Your task to perform on an android device: toggle location history Image 0: 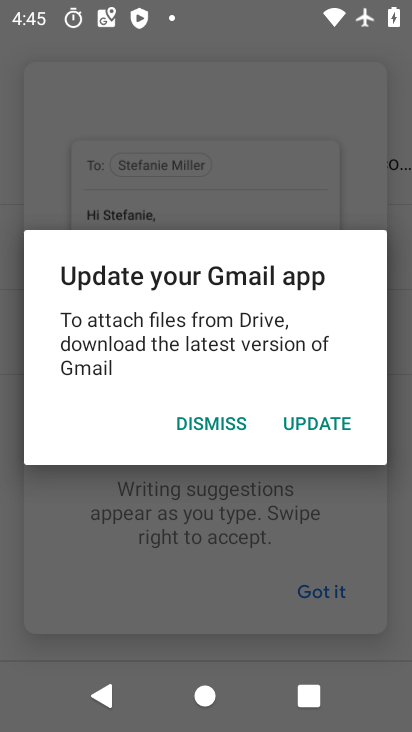
Step 0: press home button
Your task to perform on an android device: toggle location history Image 1: 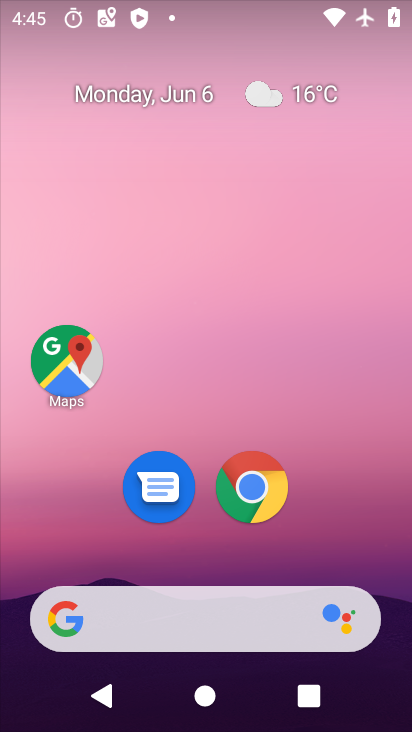
Step 1: drag from (351, 502) to (332, 79)
Your task to perform on an android device: toggle location history Image 2: 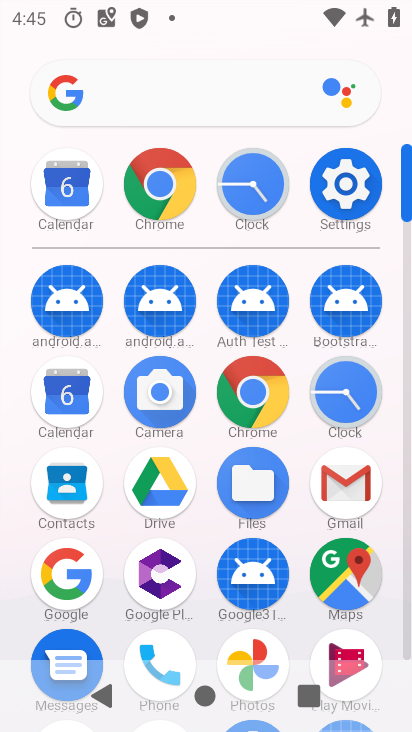
Step 2: click (346, 201)
Your task to perform on an android device: toggle location history Image 3: 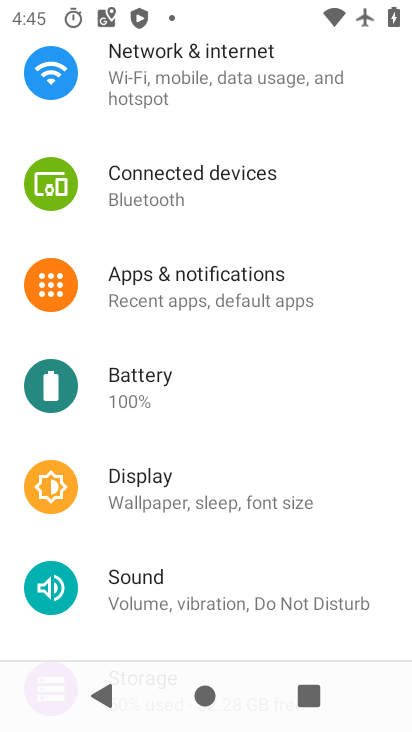
Step 3: drag from (257, 497) to (238, 63)
Your task to perform on an android device: toggle location history Image 4: 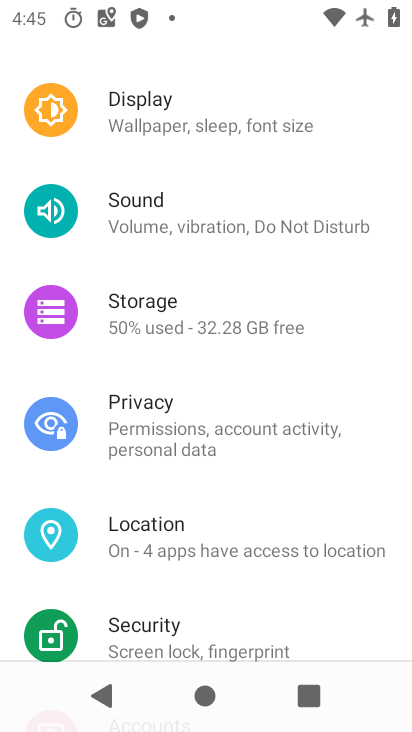
Step 4: click (238, 63)
Your task to perform on an android device: toggle location history Image 5: 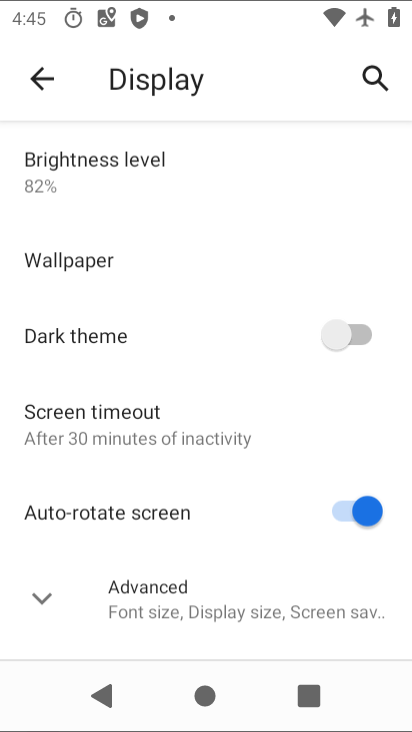
Step 5: click (153, 532)
Your task to perform on an android device: toggle location history Image 6: 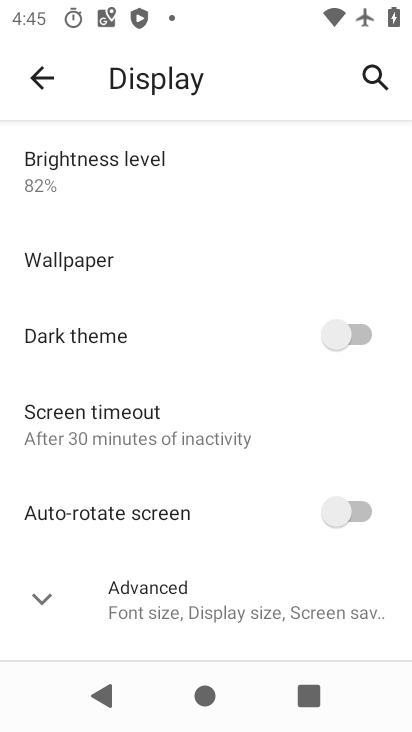
Step 6: click (50, 70)
Your task to perform on an android device: toggle location history Image 7: 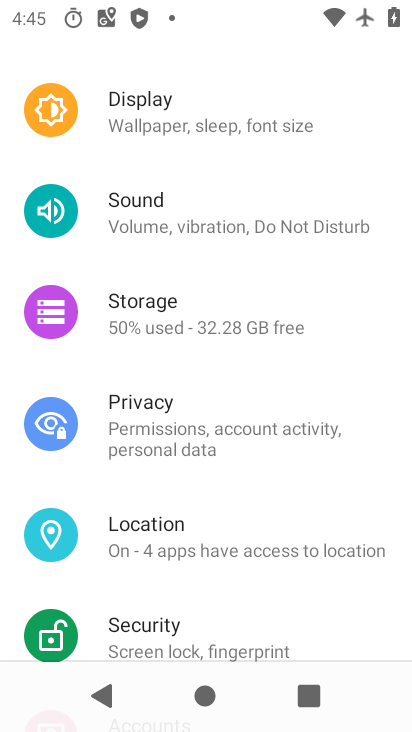
Step 7: click (194, 538)
Your task to perform on an android device: toggle location history Image 8: 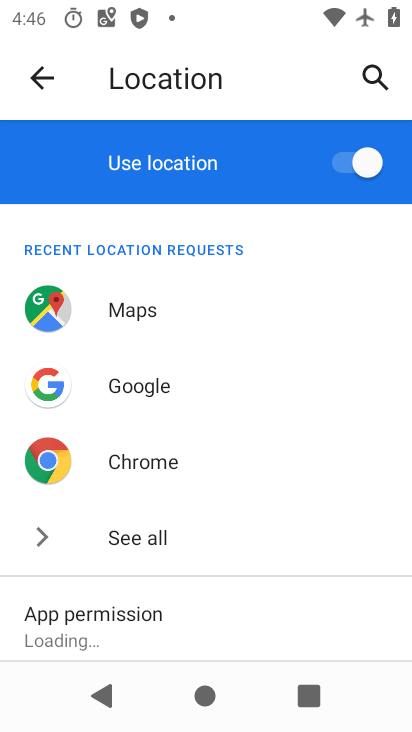
Step 8: click (347, 154)
Your task to perform on an android device: toggle location history Image 9: 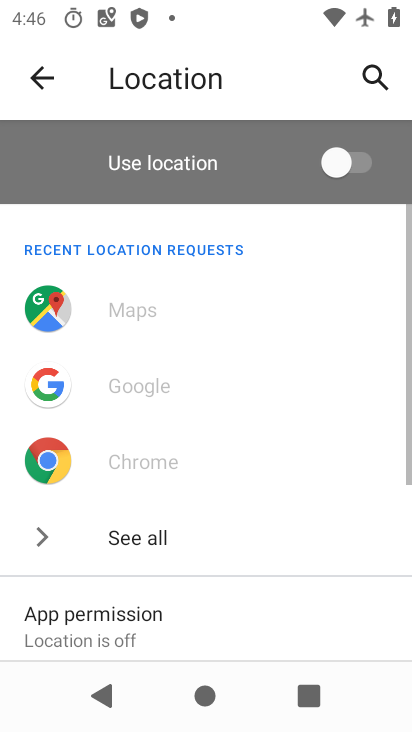
Step 9: task complete